Your task to perform on an android device: change text size in settings app Image 0: 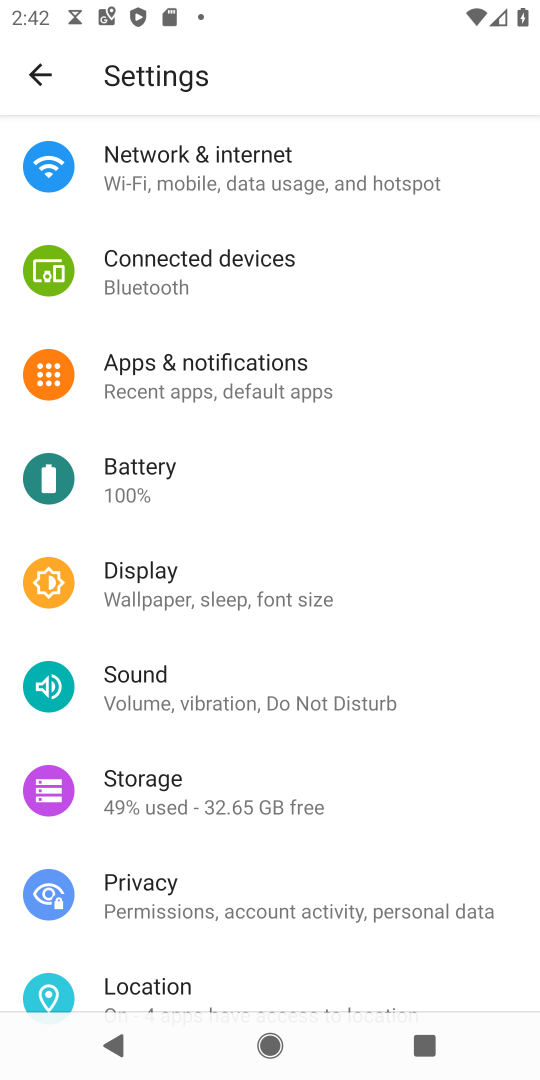
Step 0: press home button
Your task to perform on an android device: change text size in settings app Image 1: 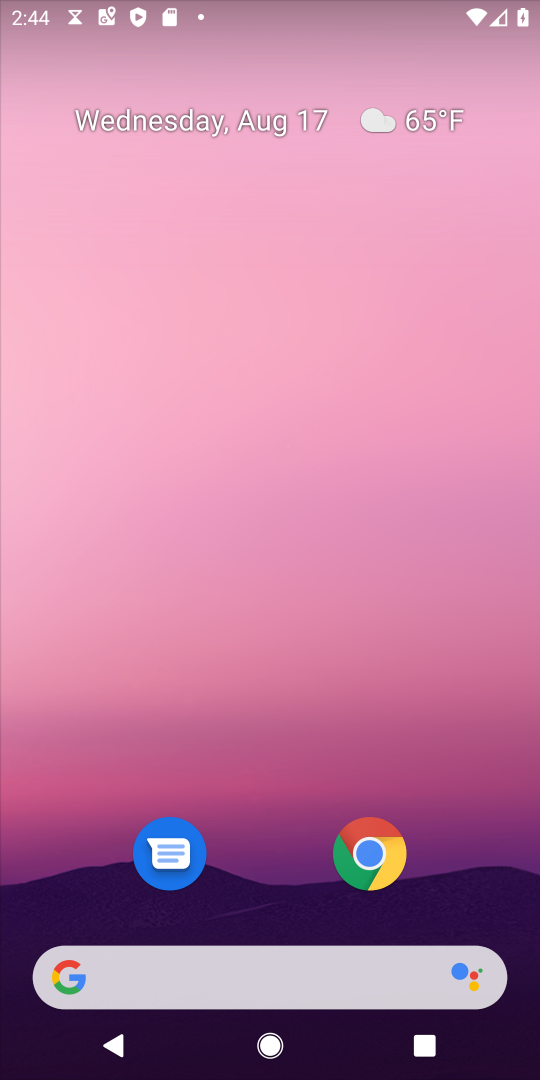
Step 1: drag from (277, 866) to (268, 6)
Your task to perform on an android device: change text size in settings app Image 2: 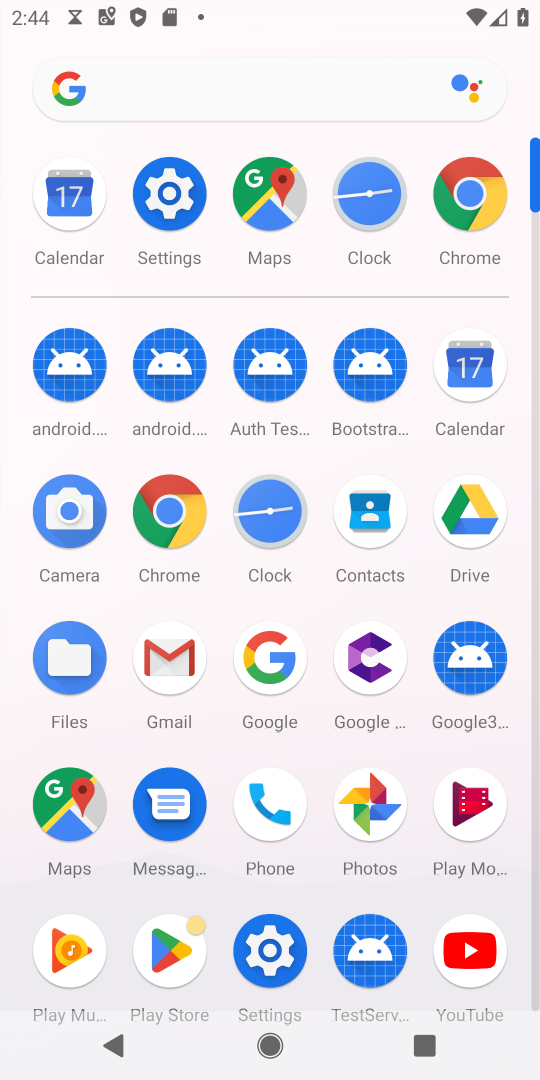
Step 2: click (265, 954)
Your task to perform on an android device: change text size in settings app Image 3: 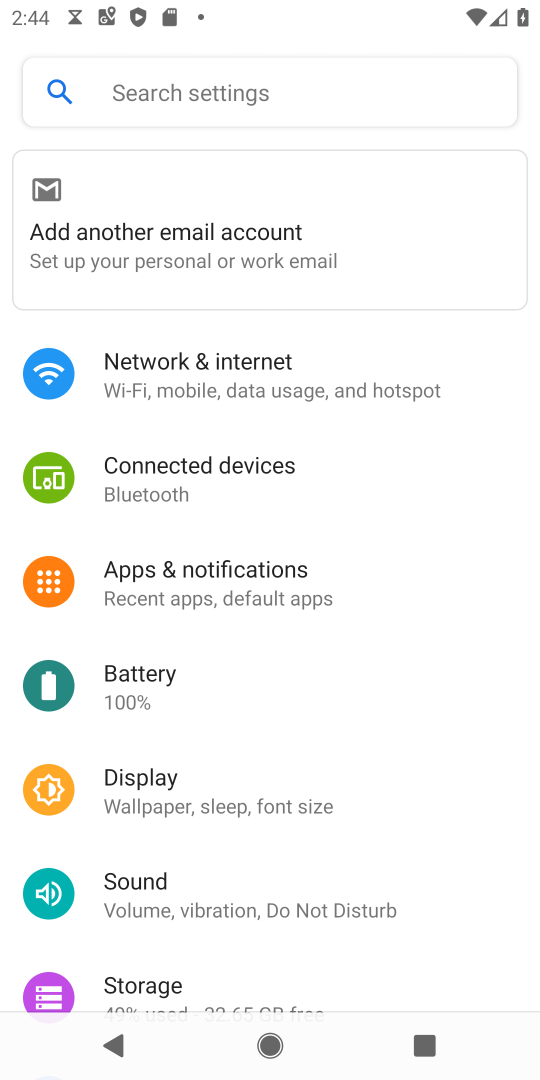
Step 3: drag from (255, 869) to (319, 241)
Your task to perform on an android device: change text size in settings app Image 4: 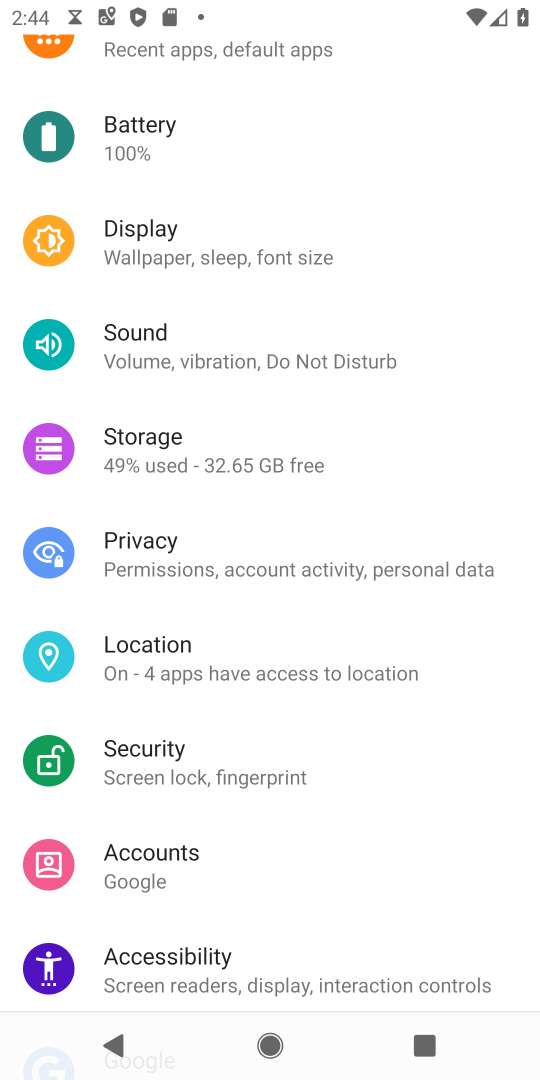
Step 4: drag from (243, 912) to (361, 270)
Your task to perform on an android device: change text size in settings app Image 5: 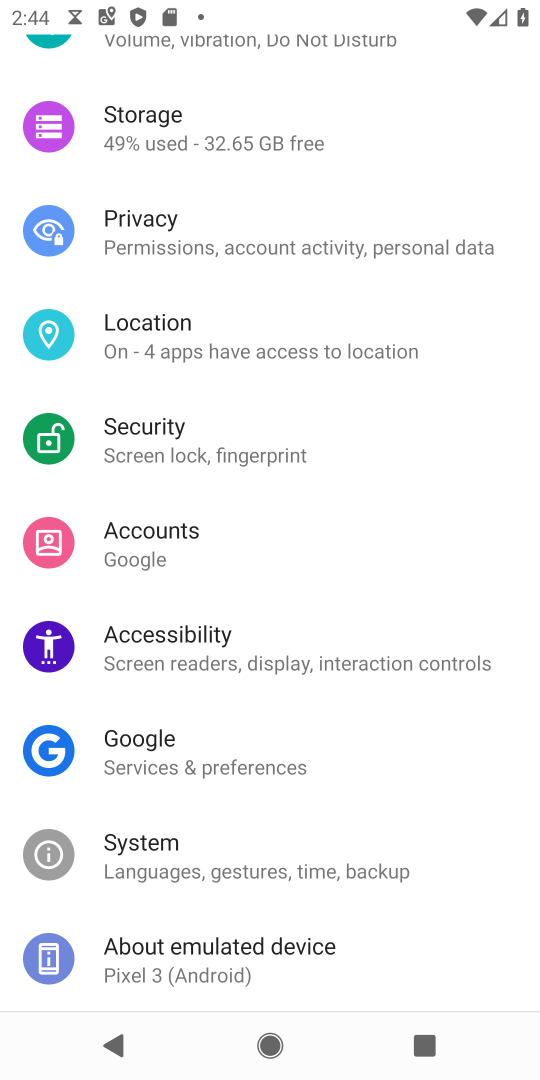
Step 5: drag from (221, 293) to (221, 847)
Your task to perform on an android device: change text size in settings app Image 6: 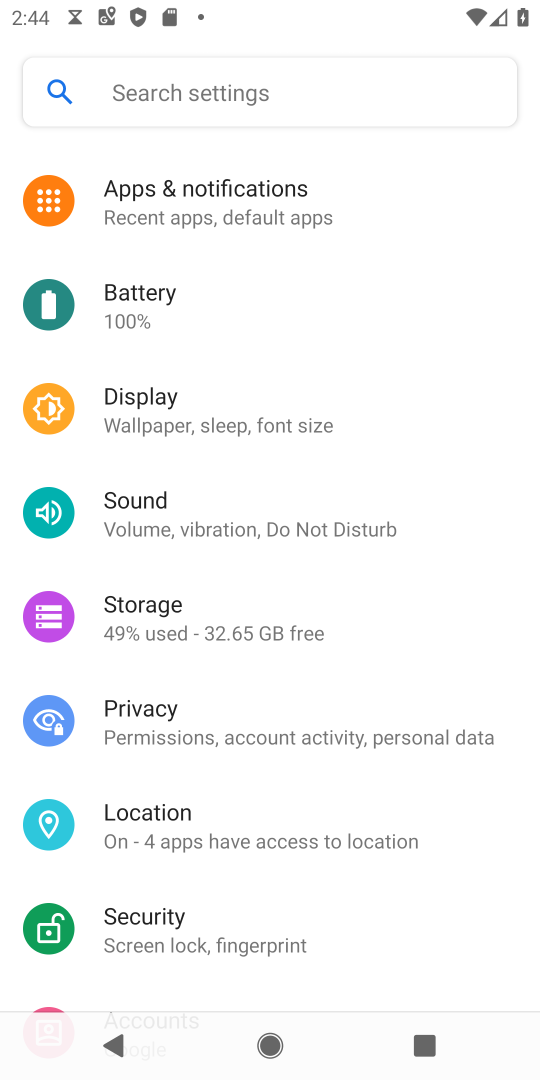
Step 6: click (151, 404)
Your task to perform on an android device: change text size in settings app Image 7: 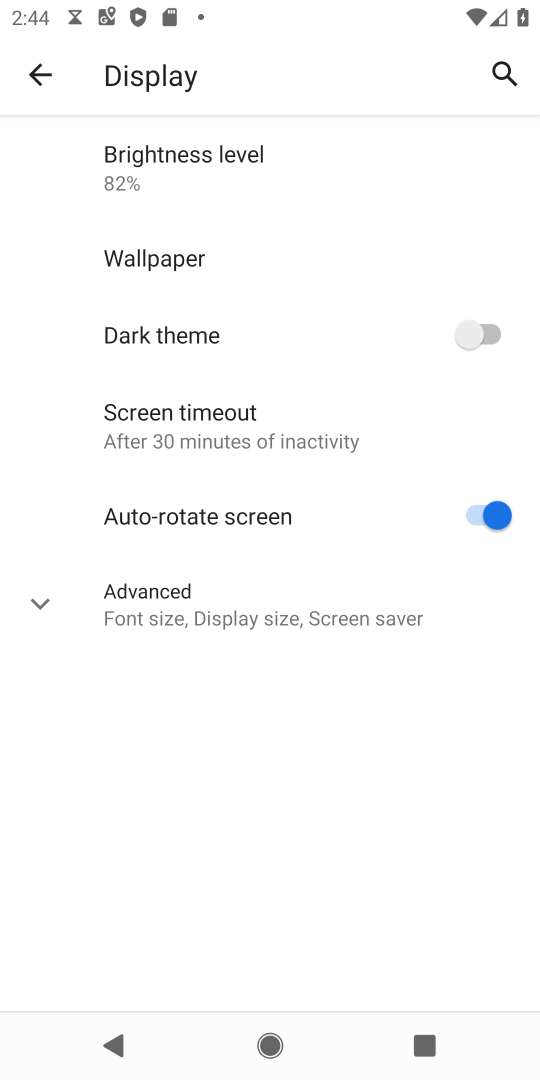
Step 7: click (186, 604)
Your task to perform on an android device: change text size in settings app Image 8: 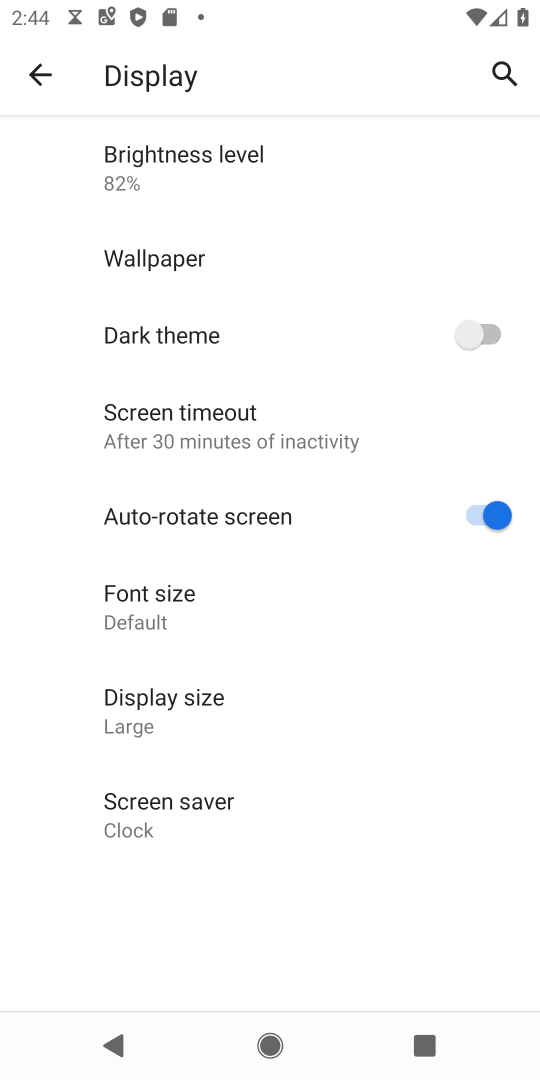
Step 8: click (167, 587)
Your task to perform on an android device: change text size in settings app Image 9: 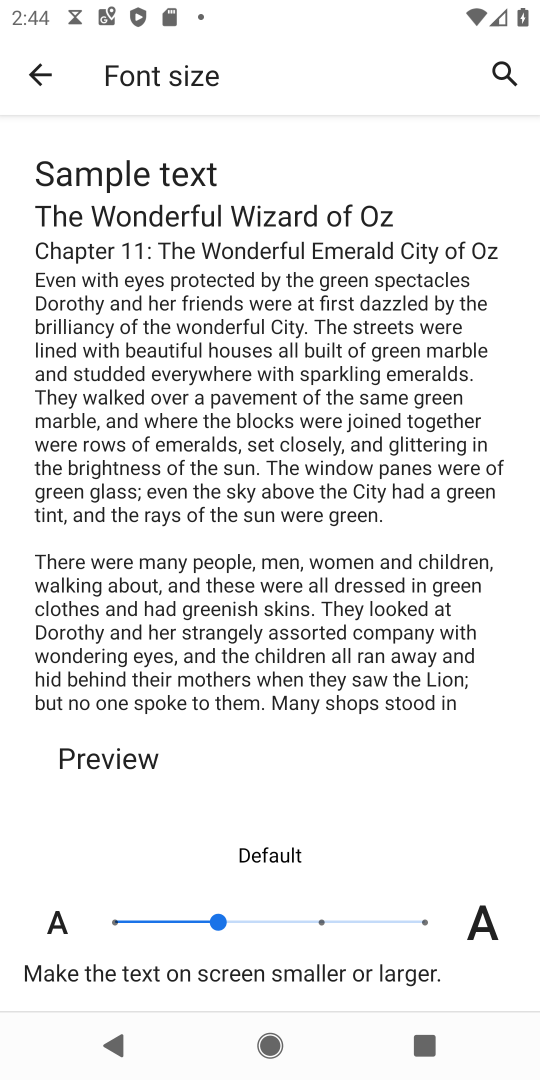
Step 9: click (128, 911)
Your task to perform on an android device: change text size in settings app Image 10: 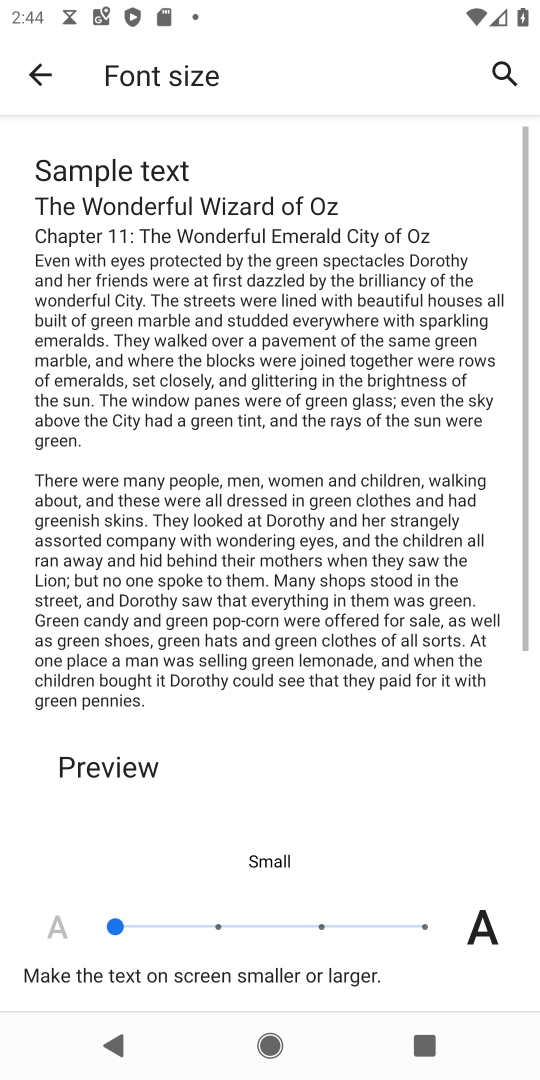
Step 10: task complete